Your task to perform on an android device: Search for handmade jewelry on Etsy. Image 0: 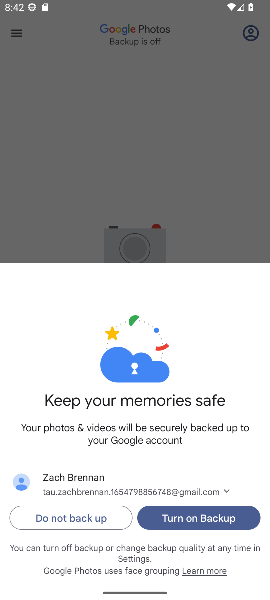
Step 0: press home button
Your task to perform on an android device: Search for handmade jewelry on Etsy. Image 1: 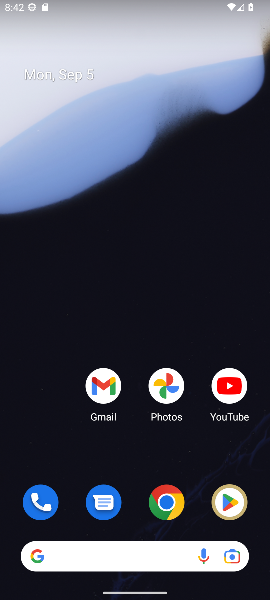
Step 1: drag from (204, 516) to (133, 17)
Your task to perform on an android device: Search for handmade jewelry on Etsy. Image 2: 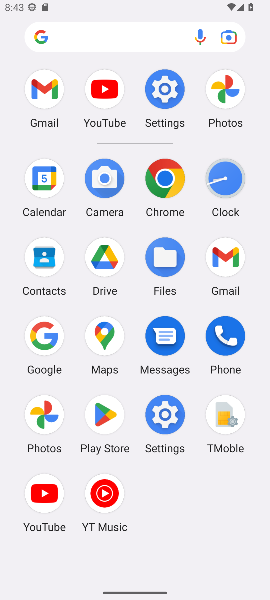
Step 2: click (34, 344)
Your task to perform on an android device: Search for handmade jewelry on Etsy. Image 3: 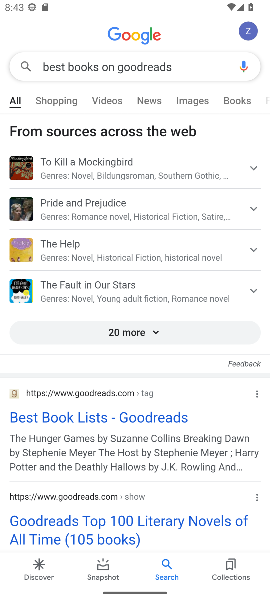
Step 3: press back button
Your task to perform on an android device: Search for handmade jewelry on Etsy. Image 4: 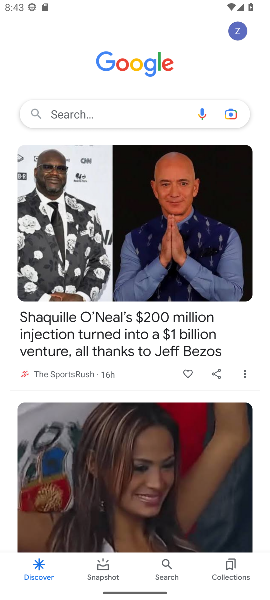
Step 4: click (95, 108)
Your task to perform on an android device: Search for handmade jewelry on Etsy. Image 5: 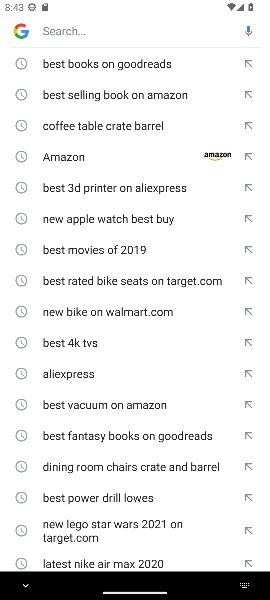
Step 5: type "handmade jewelry on Etsy"
Your task to perform on an android device: Search for handmade jewelry on Etsy. Image 6: 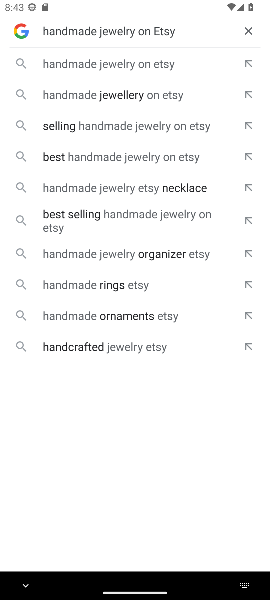
Step 6: click (101, 68)
Your task to perform on an android device: Search for handmade jewelry on Etsy. Image 7: 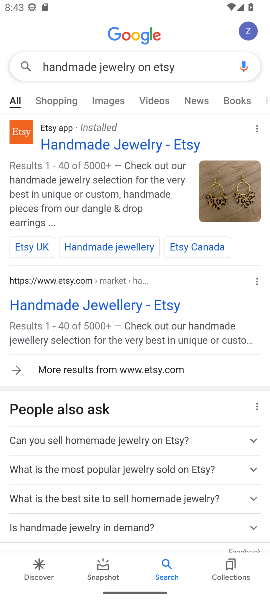
Step 7: task complete